Your task to perform on an android device: manage bookmarks in the chrome app Image 0: 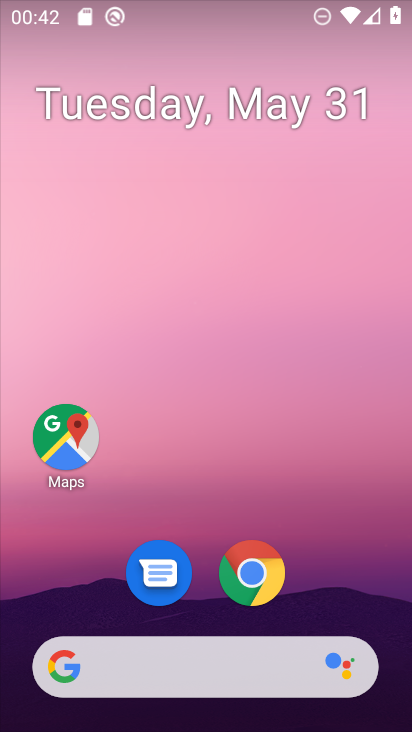
Step 0: click (244, 572)
Your task to perform on an android device: manage bookmarks in the chrome app Image 1: 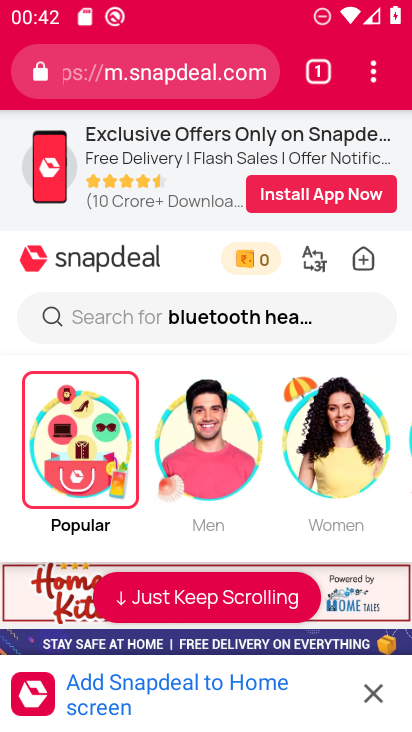
Step 1: click (381, 85)
Your task to perform on an android device: manage bookmarks in the chrome app Image 2: 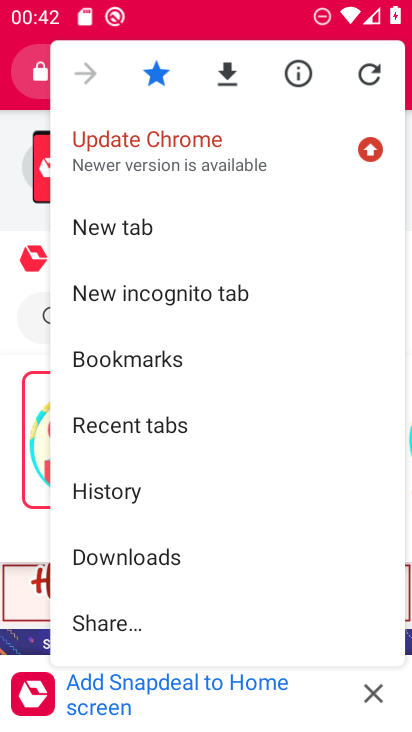
Step 2: click (153, 366)
Your task to perform on an android device: manage bookmarks in the chrome app Image 3: 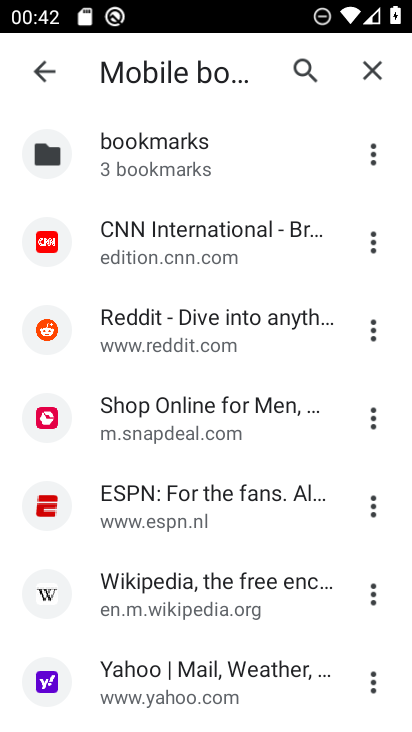
Step 3: click (378, 342)
Your task to perform on an android device: manage bookmarks in the chrome app Image 4: 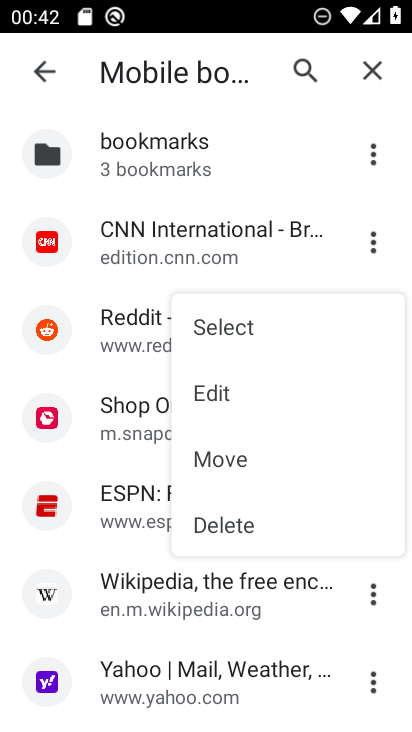
Step 4: click (261, 512)
Your task to perform on an android device: manage bookmarks in the chrome app Image 5: 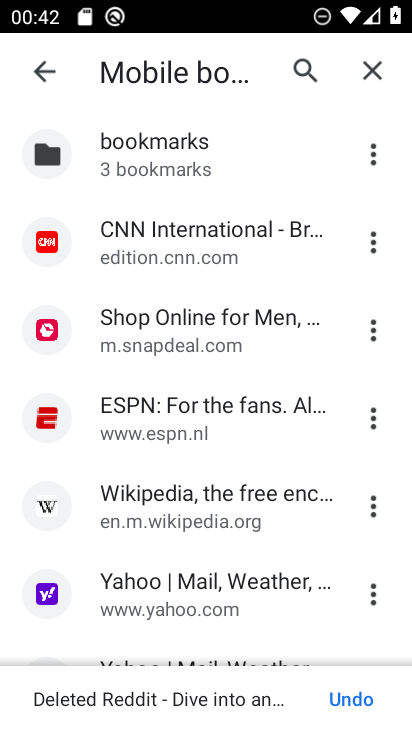
Step 5: task complete